Your task to perform on an android device: Open Youtube and go to the subscriptions tab Image 0: 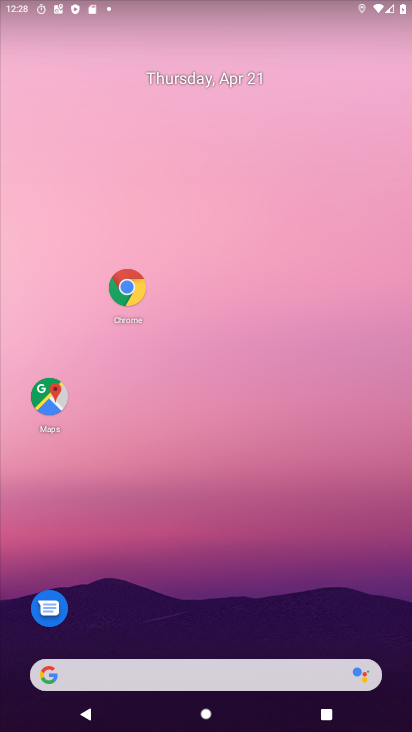
Step 0: drag from (313, 549) to (289, 66)
Your task to perform on an android device: Open Youtube and go to the subscriptions tab Image 1: 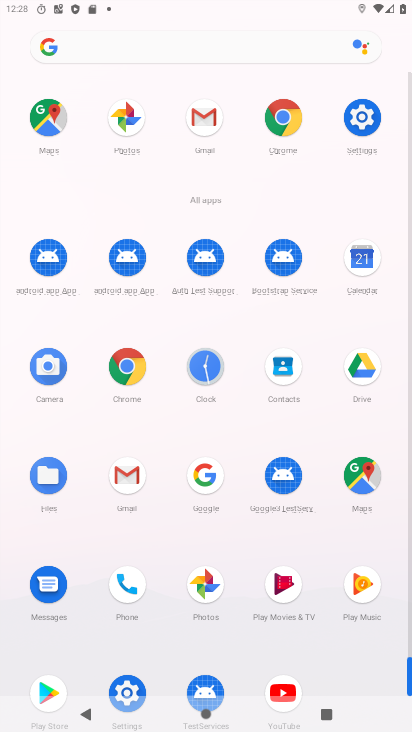
Step 1: click (286, 684)
Your task to perform on an android device: Open Youtube and go to the subscriptions tab Image 2: 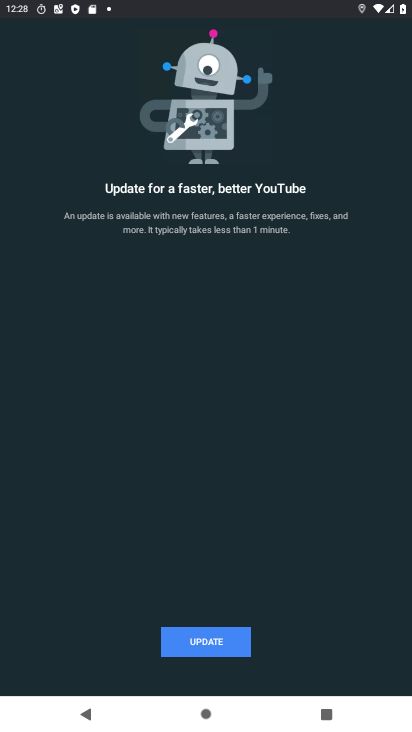
Step 2: click (243, 645)
Your task to perform on an android device: Open Youtube and go to the subscriptions tab Image 3: 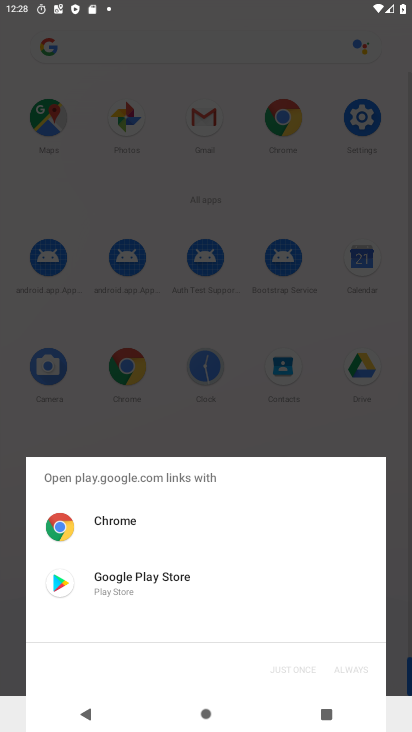
Step 3: click (185, 585)
Your task to perform on an android device: Open Youtube and go to the subscriptions tab Image 4: 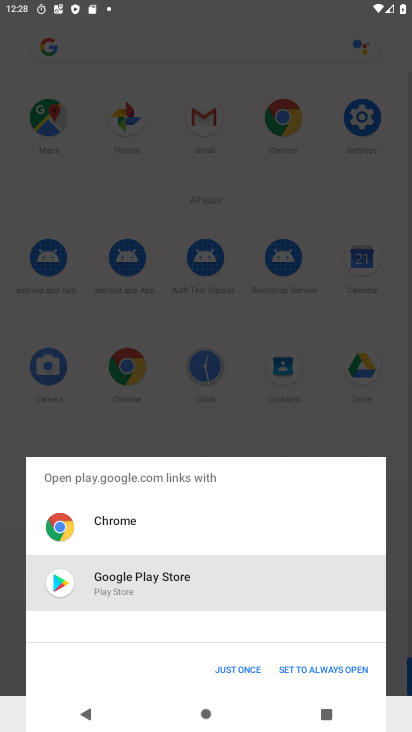
Step 4: click (251, 664)
Your task to perform on an android device: Open Youtube and go to the subscriptions tab Image 5: 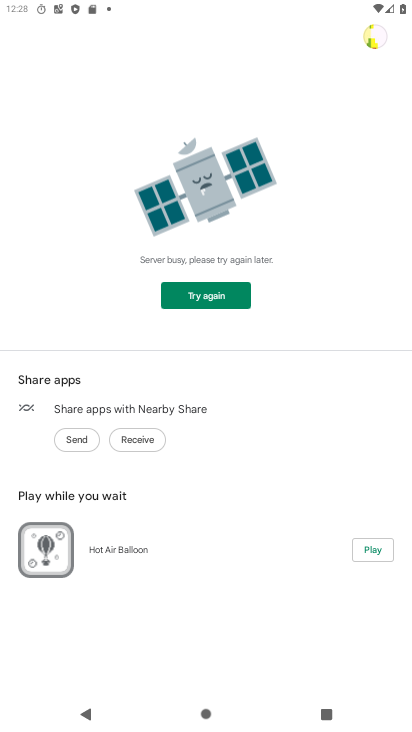
Step 5: click (231, 295)
Your task to perform on an android device: Open Youtube and go to the subscriptions tab Image 6: 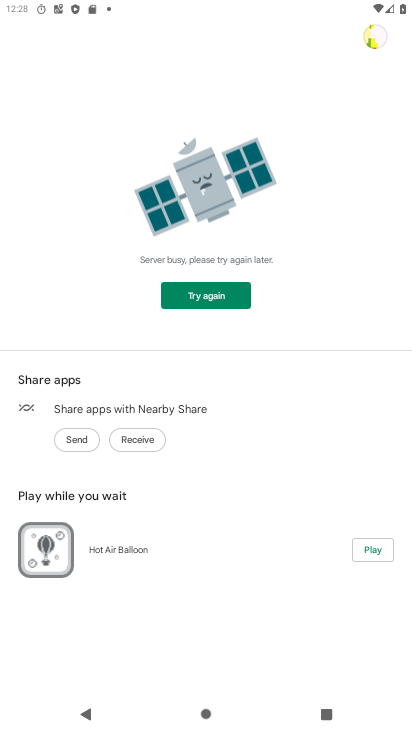
Step 6: press back button
Your task to perform on an android device: Open Youtube and go to the subscriptions tab Image 7: 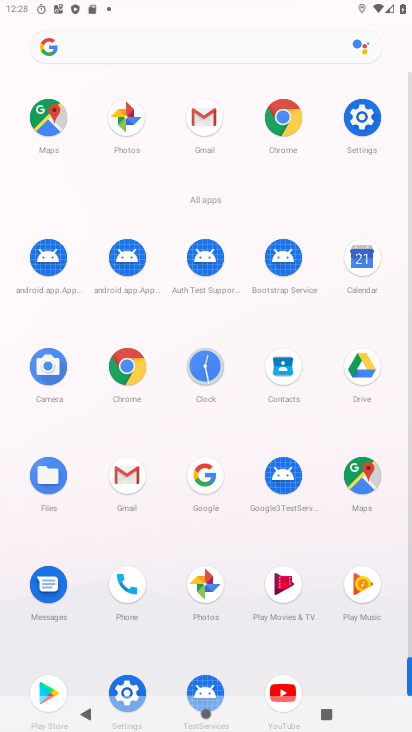
Step 7: click (278, 682)
Your task to perform on an android device: Open Youtube and go to the subscriptions tab Image 8: 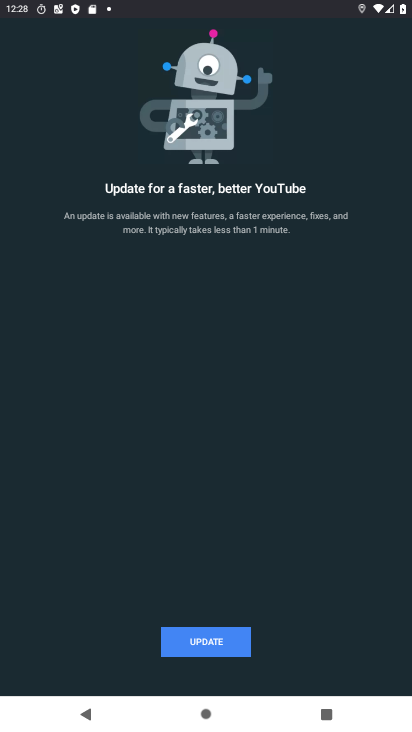
Step 8: press back button
Your task to perform on an android device: Open Youtube and go to the subscriptions tab Image 9: 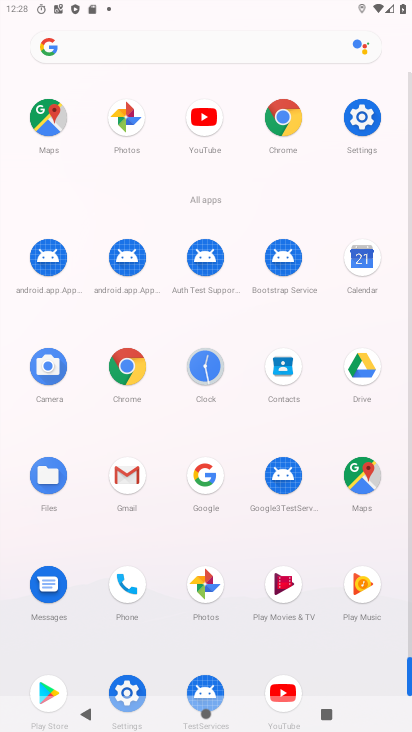
Step 9: drag from (342, 650) to (330, 495)
Your task to perform on an android device: Open Youtube and go to the subscriptions tab Image 10: 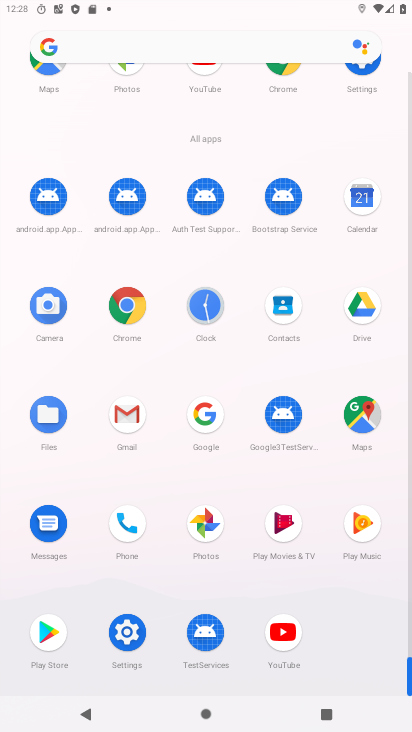
Step 10: click (276, 625)
Your task to perform on an android device: Open Youtube and go to the subscriptions tab Image 11: 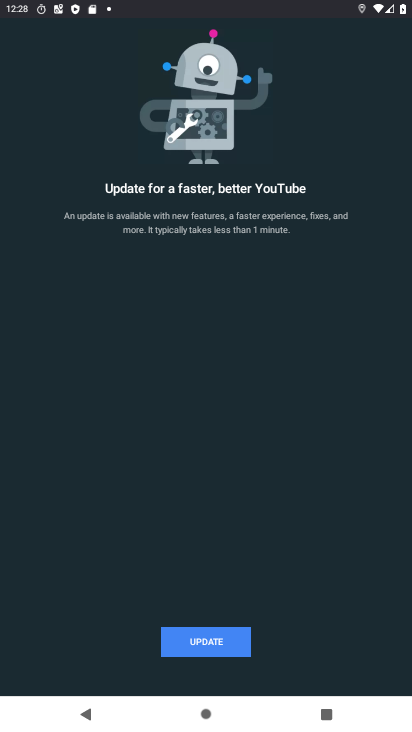
Step 11: click (222, 644)
Your task to perform on an android device: Open Youtube and go to the subscriptions tab Image 12: 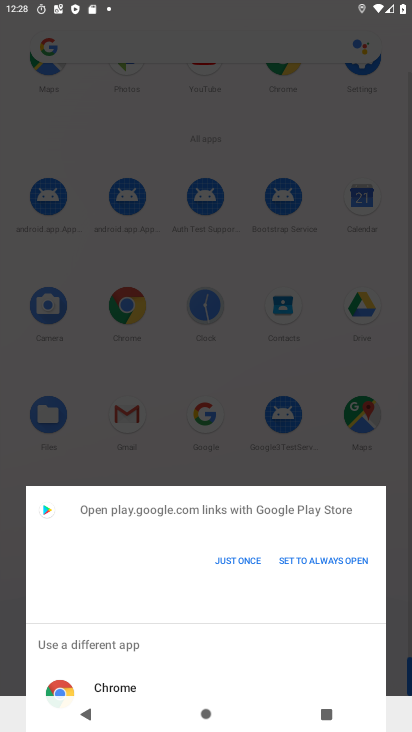
Step 12: click (234, 558)
Your task to perform on an android device: Open Youtube and go to the subscriptions tab Image 13: 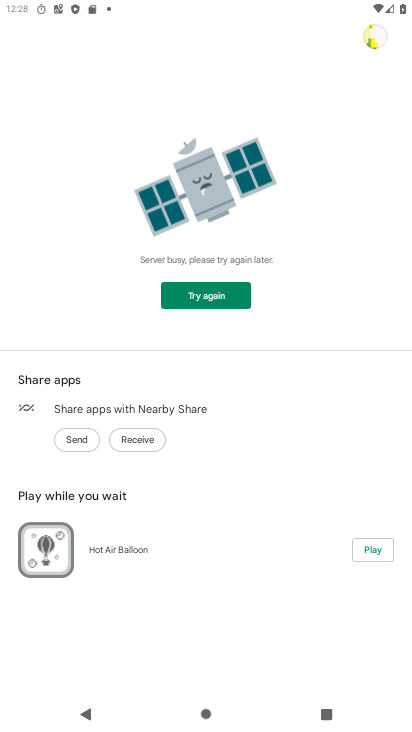
Step 13: click (200, 298)
Your task to perform on an android device: Open Youtube and go to the subscriptions tab Image 14: 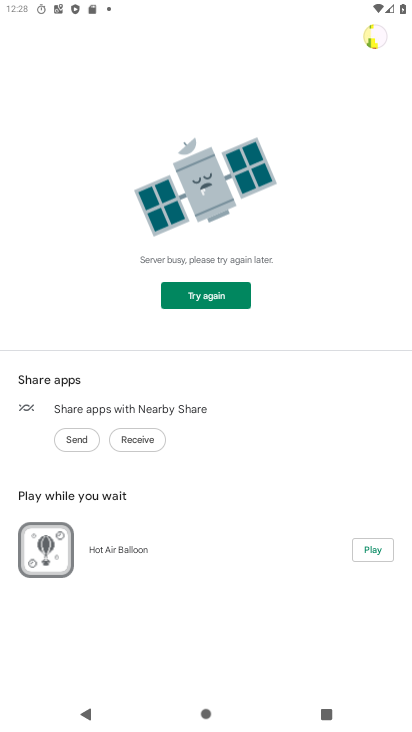
Step 14: task complete